Your task to perform on an android device: Search for seafood restaurants on Google Maps Image 0: 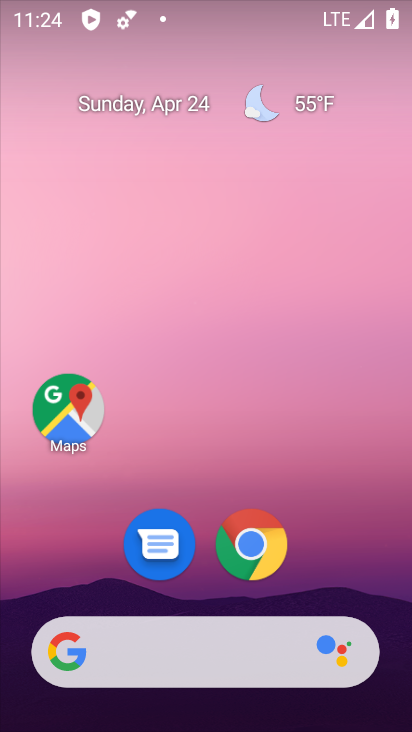
Step 0: click (82, 412)
Your task to perform on an android device: Search for seafood restaurants on Google Maps Image 1: 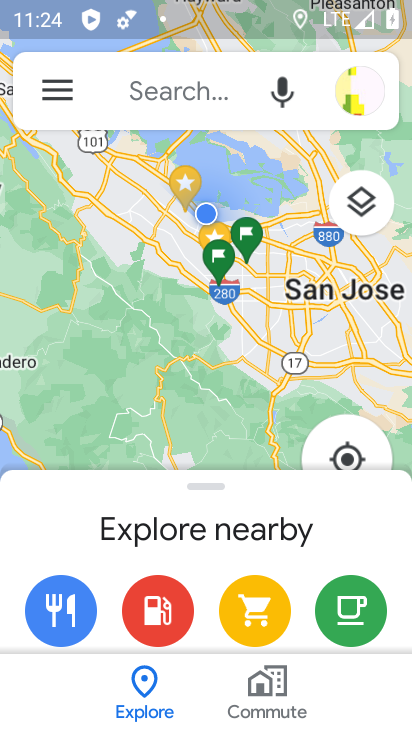
Step 1: click (110, 91)
Your task to perform on an android device: Search for seafood restaurants on Google Maps Image 2: 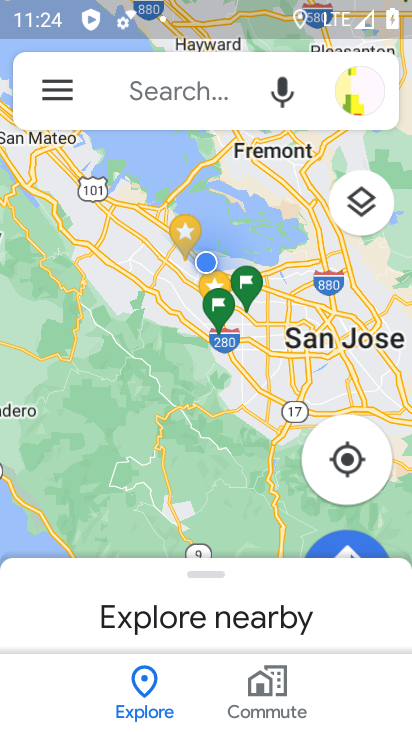
Step 2: click (152, 90)
Your task to perform on an android device: Search for seafood restaurants on Google Maps Image 3: 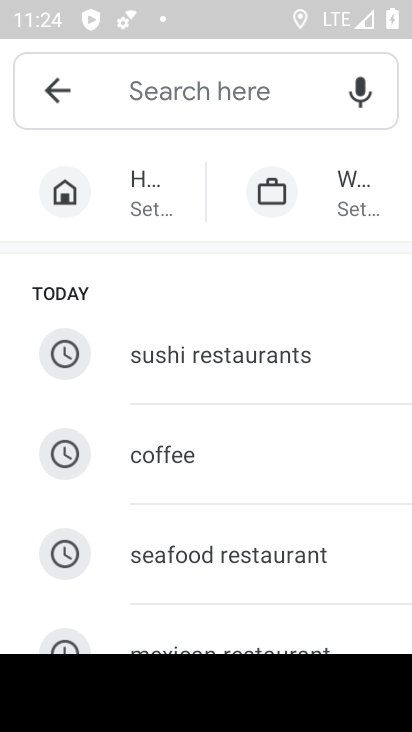
Step 3: click (193, 559)
Your task to perform on an android device: Search for seafood restaurants on Google Maps Image 4: 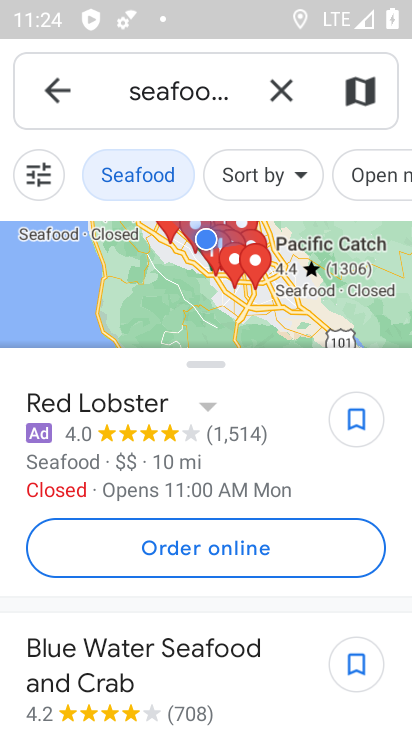
Step 4: task complete